Your task to perform on an android device: search for starred emails in the gmail app Image 0: 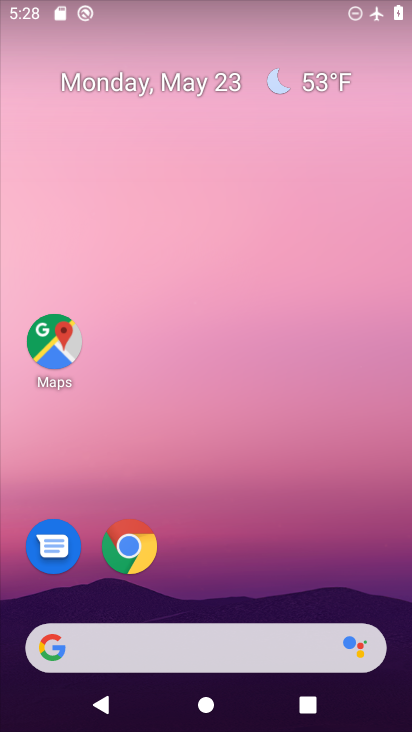
Step 0: drag from (322, 9) to (318, 389)
Your task to perform on an android device: search for starred emails in the gmail app Image 1: 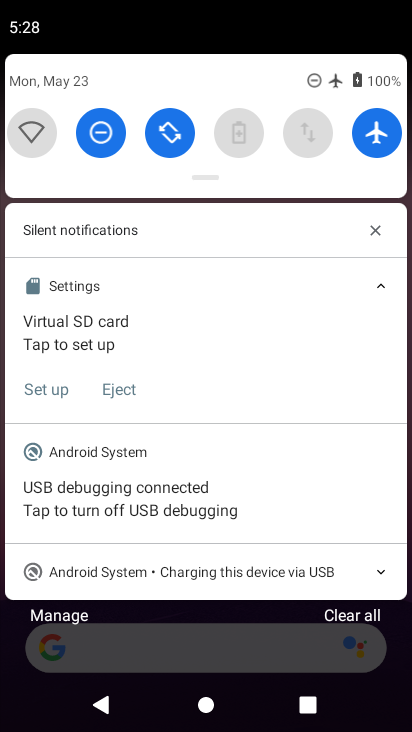
Step 1: click (374, 138)
Your task to perform on an android device: search for starred emails in the gmail app Image 2: 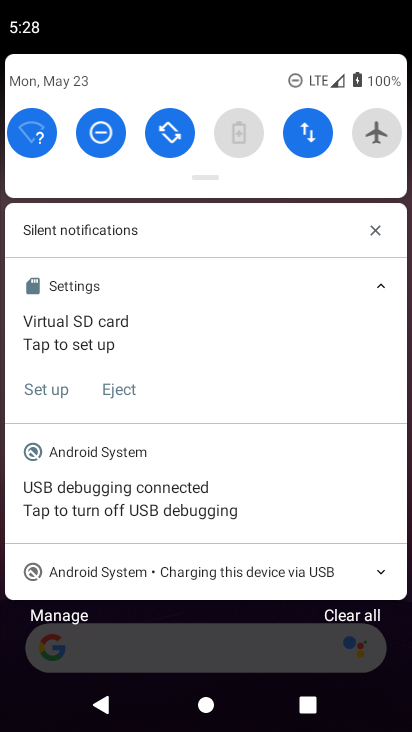
Step 2: click (246, 702)
Your task to perform on an android device: search for starred emails in the gmail app Image 3: 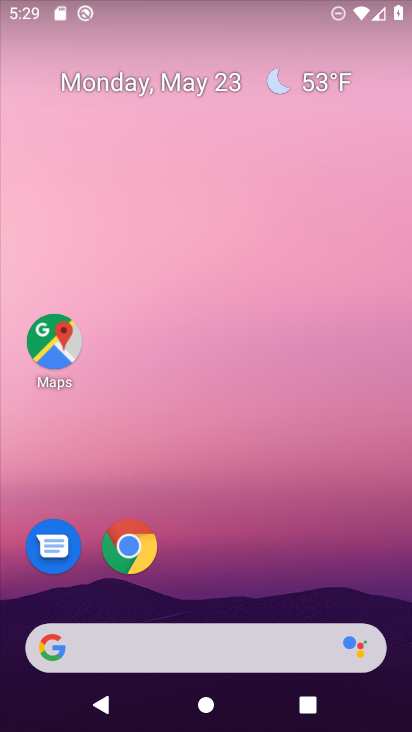
Step 3: drag from (263, 574) to (258, 27)
Your task to perform on an android device: search for starred emails in the gmail app Image 4: 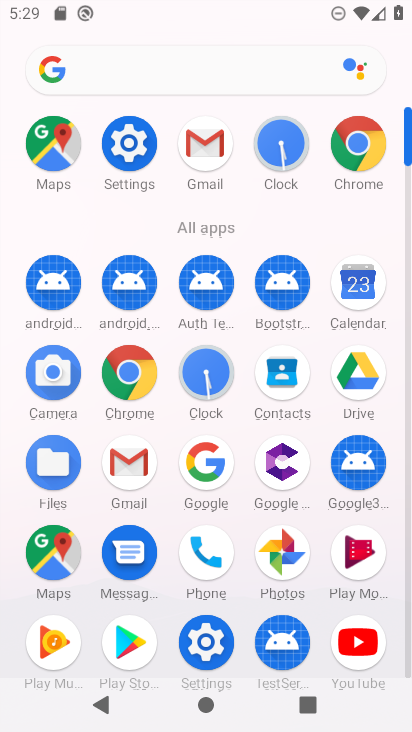
Step 4: click (133, 457)
Your task to perform on an android device: search for starred emails in the gmail app Image 5: 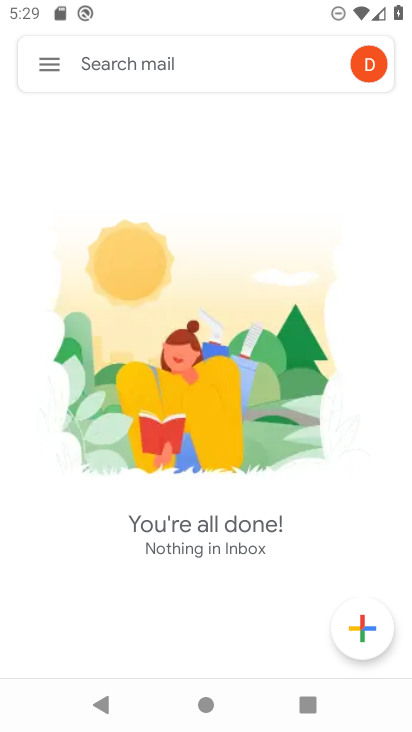
Step 5: click (54, 62)
Your task to perform on an android device: search for starred emails in the gmail app Image 6: 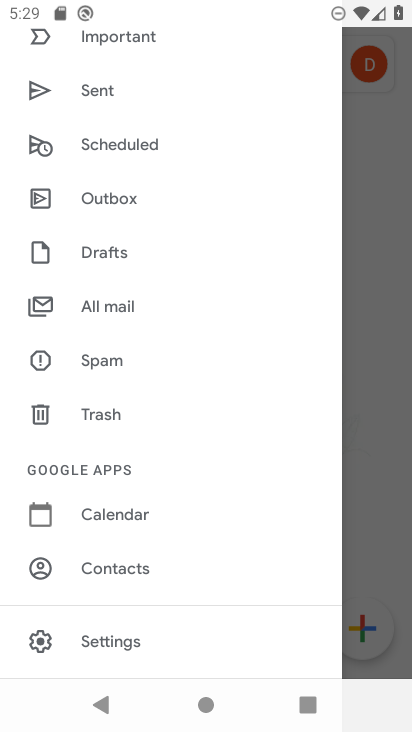
Step 6: drag from (180, 133) to (161, 394)
Your task to perform on an android device: search for starred emails in the gmail app Image 7: 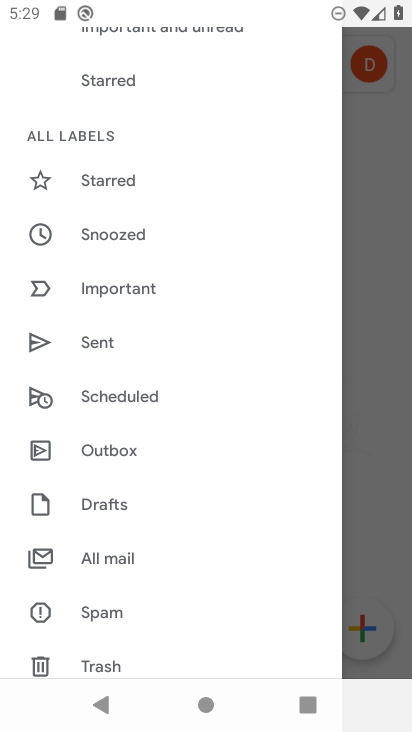
Step 7: click (110, 179)
Your task to perform on an android device: search for starred emails in the gmail app Image 8: 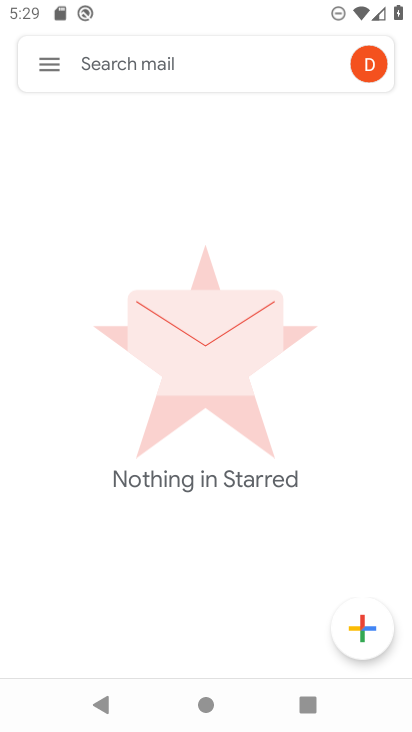
Step 8: task complete